Your task to perform on an android device: Show me productivity apps on the Play Store Image 0: 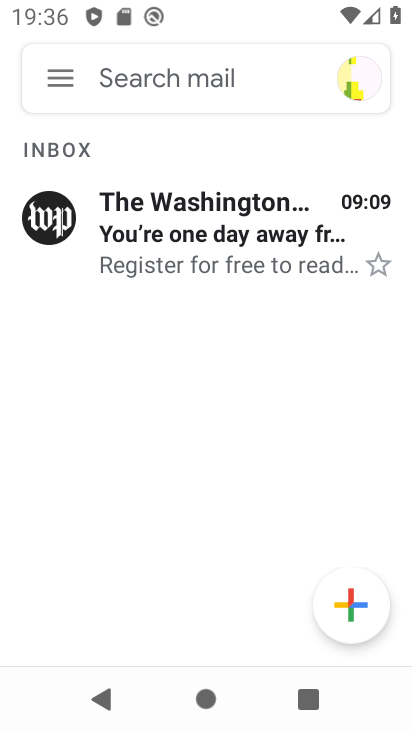
Step 0: press home button
Your task to perform on an android device: Show me productivity apps on the Play Store Image 1: 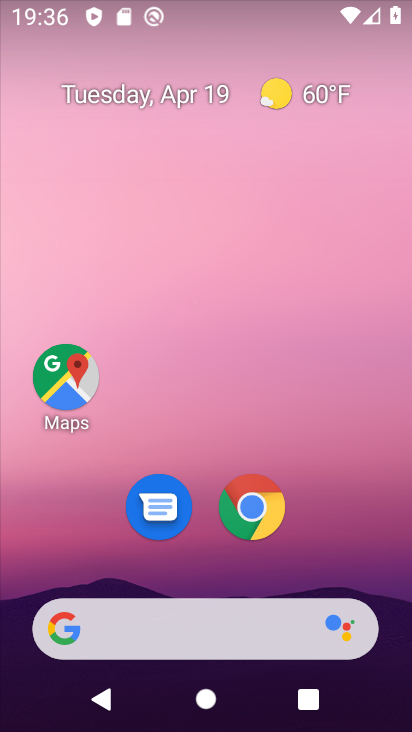
Step 1: drag from (317, 508) to (295, 100)
Your task to perform on an android device: Show me productivity apps on the Play Store Image 2: 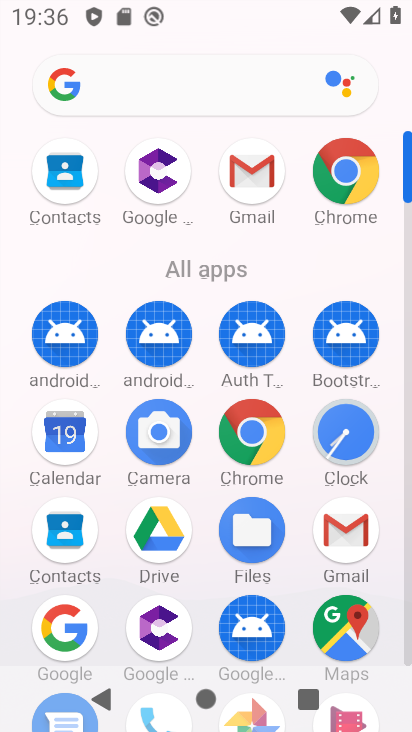
Step 2: drag from (199, 533) to (206, 235)
Your task to perform on an android device: Show me productivity apps on the Play Store Image 3: 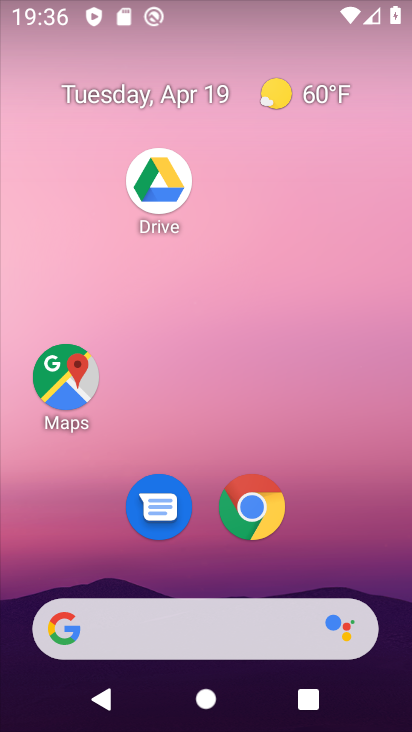
Step 3: drag from (345, 531) to (292, 88)
Your task to perform on an android device: Show me productivity apps on the Play Store Image 4: 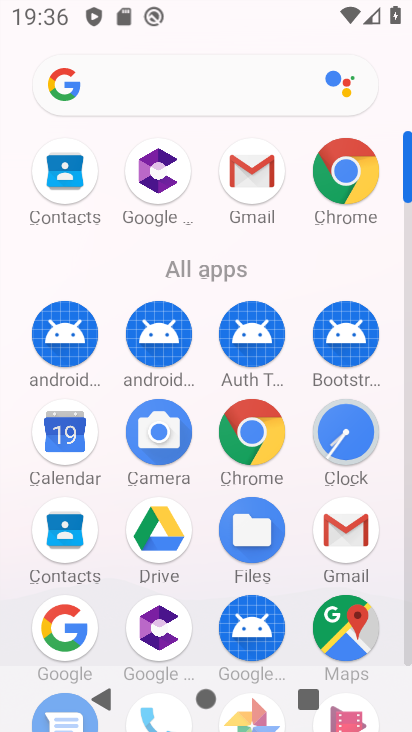
Step 4: drag from (209, 576) to (215, 366)
Your task to perform on an android device: Show me productivity apps on the Play Store Image 5: 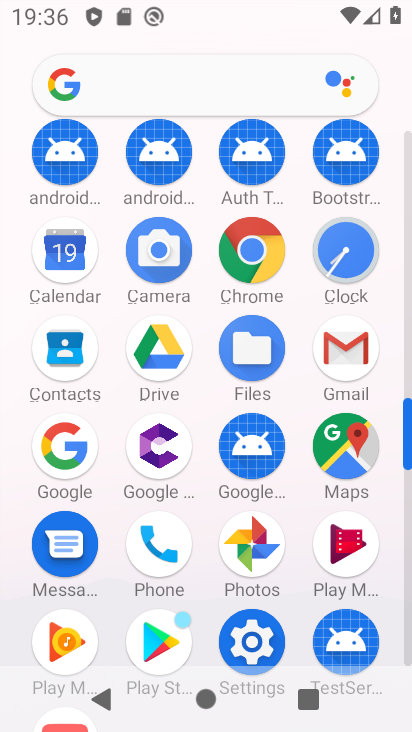
Step 5: click (163, 620)
Your task to perform on an android device: Show me productivity apps on the Play Store Image 6: 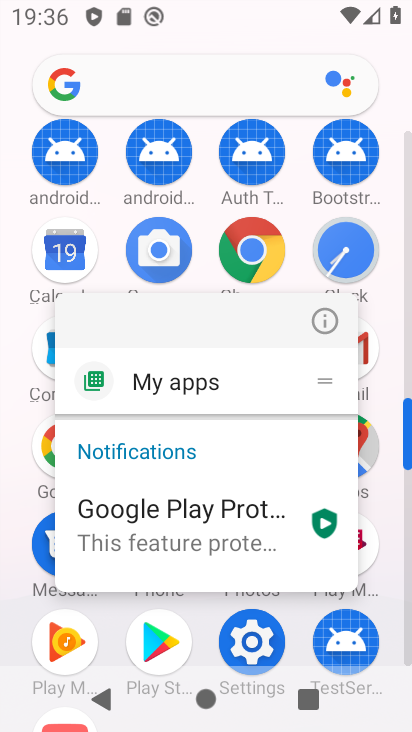
Step 6: click (168, 612)
Your task to perform on an android device: Show me productivity apps on the Play Store Image 7: 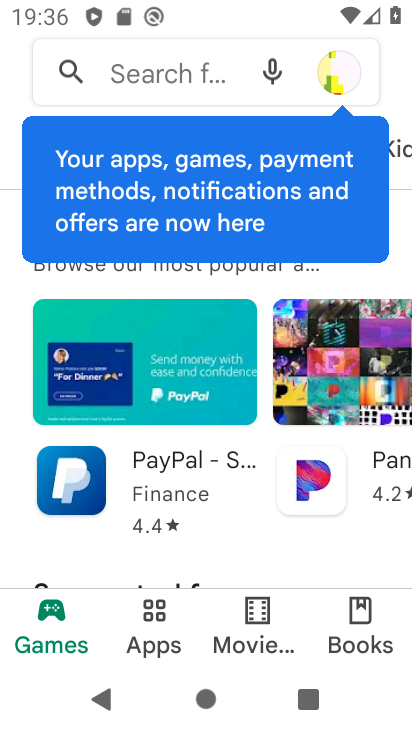
Step 7: click (154, 71)
Your task to perform on an android device: Show me productivity apps on the Play Store Image 8: 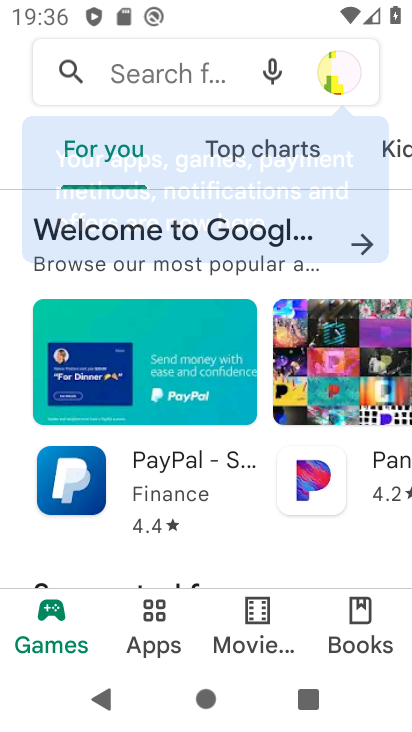
Step 8: click (154, 71)
Your task to perform on an android device: Show me productivity apps on the Play Store Image 9: 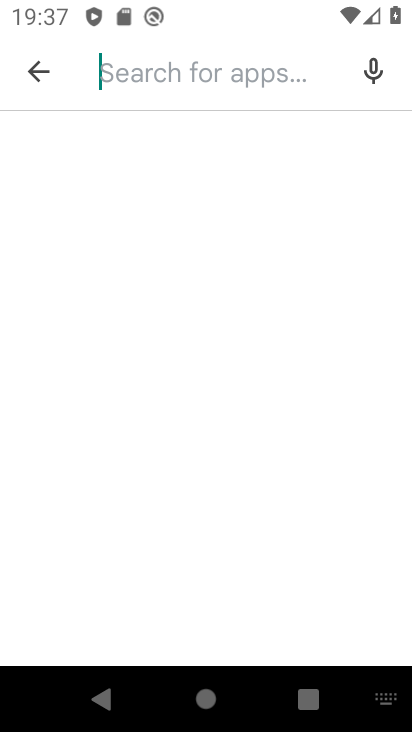
Step 9: type "productivity apps"
Your task to perform on an android device: Show me productivity apps on the Play Store Image 10: 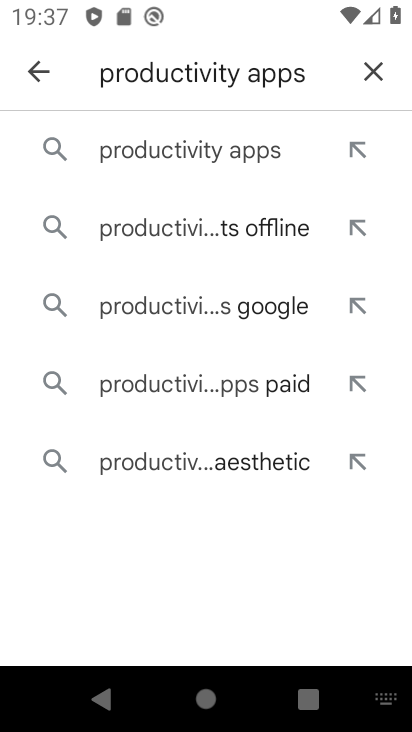
Step 10: click (265, 148)
Your task to perform on an android device: Show me productivity apps on the Play Store Image 11: 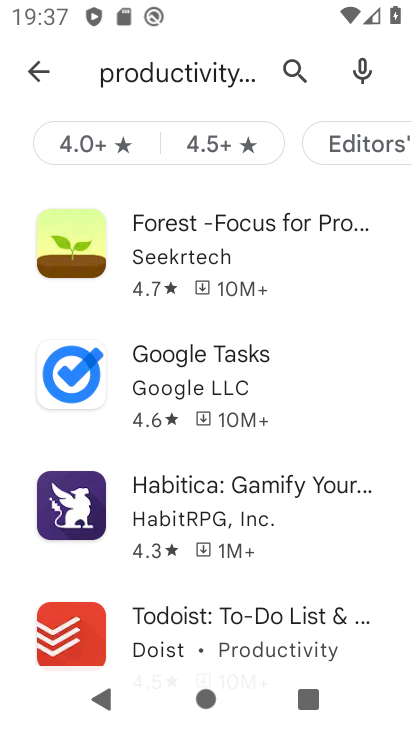
Step 11: task complete